Your task to perform on an android device: Open calendar and show me the second week of next month Image 0: 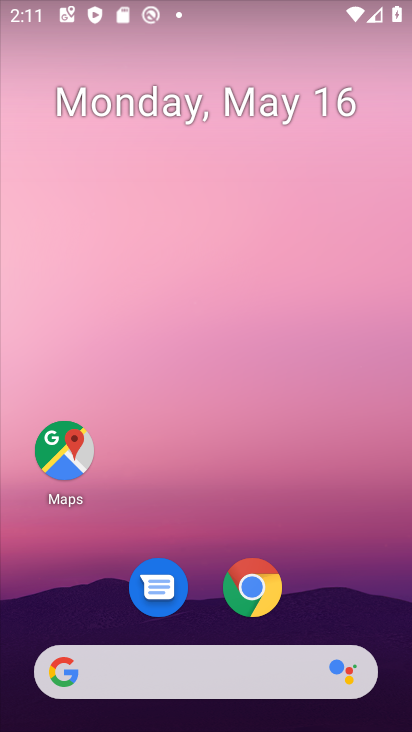
Step 0: drag from (319, 597) to (193, 129)
Your task to perform on an android device: Open calendar and show me the second week of next month Image 1: 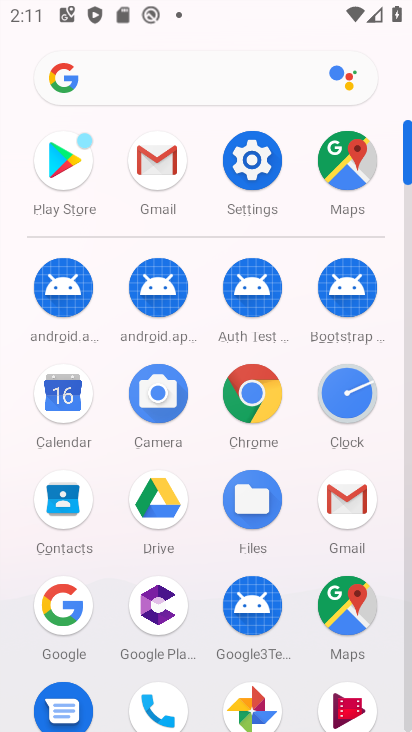
Step 1: click (62, 396)
Your task to perform on an android device: Open calendar and show me the second week of next month Image 2: 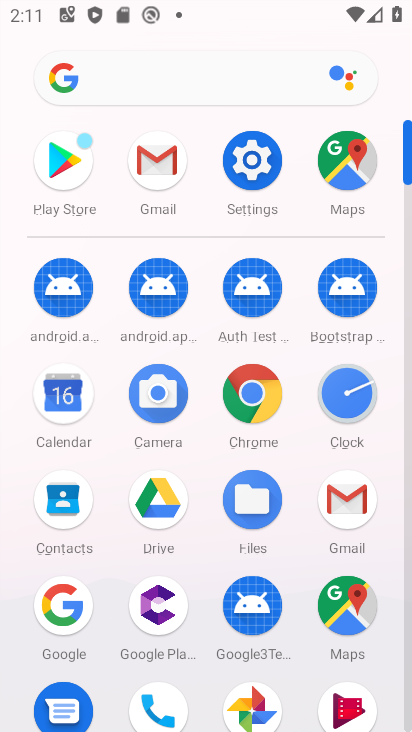
Step 2: click (62, 396)
Your task to perform on an android device: Open calendar and show me the second week of next month Image 3: 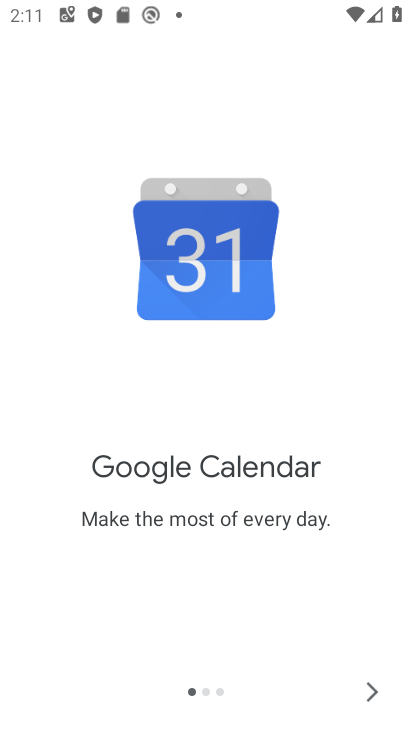
Step 3: click (366, 694)
Your task to perform on an android device: Open calendar and show me the second week of next month Image 4: 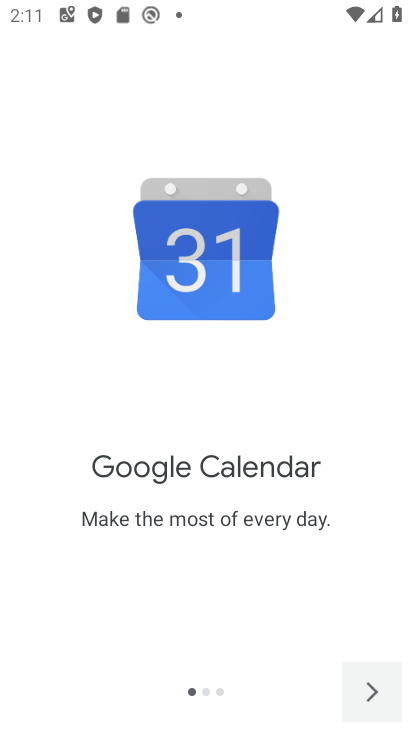
Step 4: click (368, 688)
Your task to perform on an android device: Open calendar and show me the second week of next month Image 5: 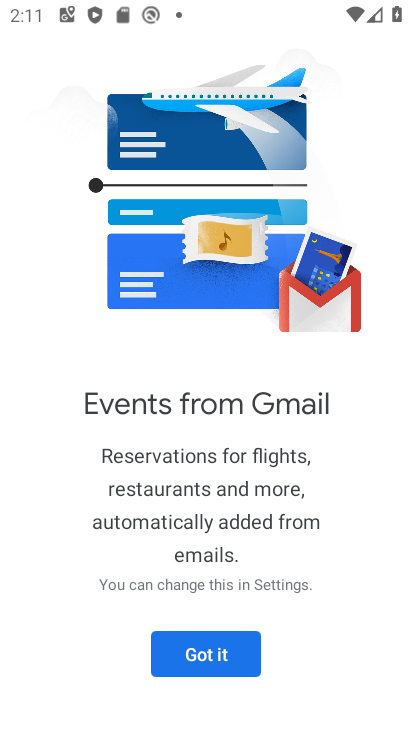
Step 5: click (202, 652)
Your task to perform on an android device: Open calendar and show me the second week of next month Image 6: 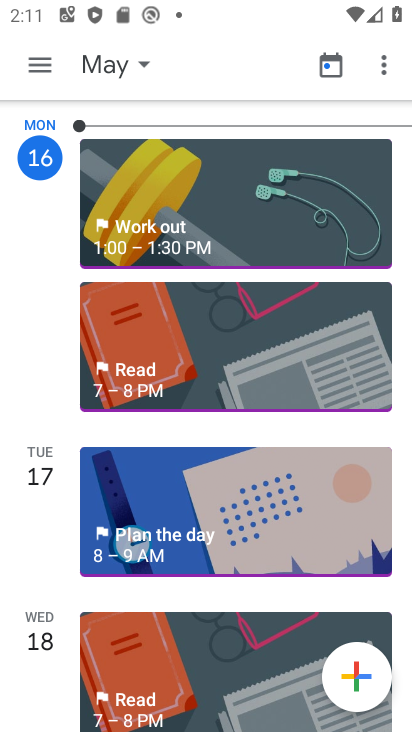
Step 6: drag from (198, 508) to (192, 255)
Your task to perform on an android device: Open calendar and show me the second week of next month Image 7: 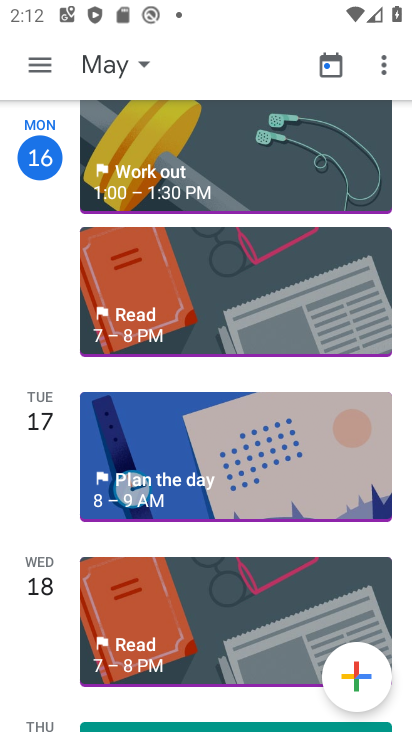
Step 7: click (142, 56)
Your task to perform on an android device: Open calendar and show me the second week of next month Image 8: 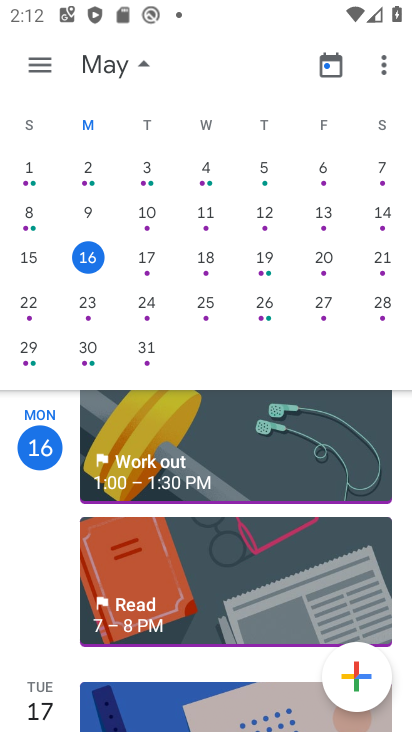
Step 8: drag from (327, 254) to (59, 162)
Your task to perform on an android device: Open calendar and show me the second week of next month Image 9: 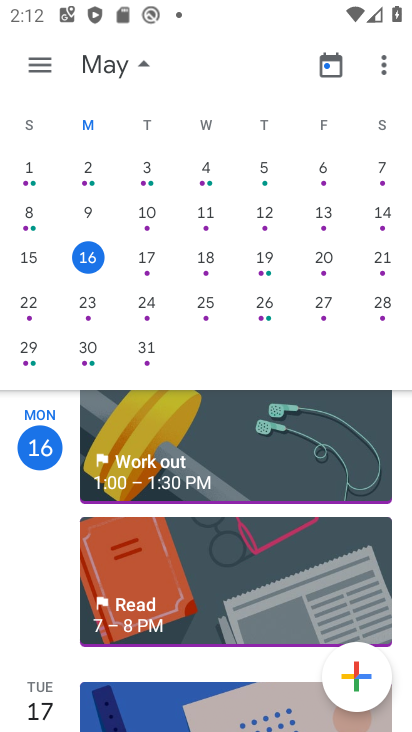
Step 9: drag from (214, 187) to (26, 162)
Your task to perform on an android device: Open calendar and show me the second week of next month Image 10: 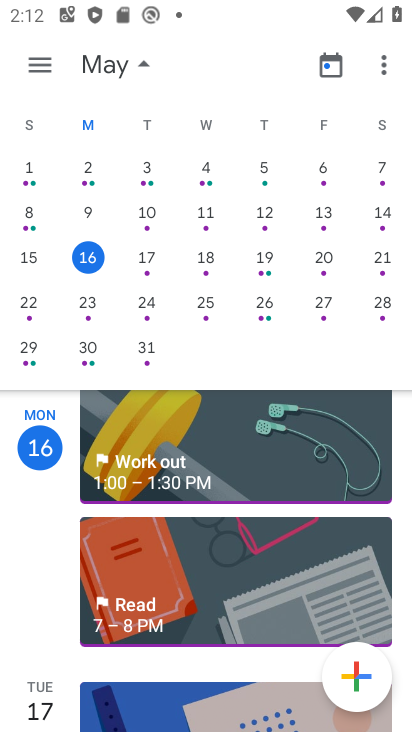
Step 10: drag from (204, 252) to (22, 299)
Your task to perform on an android device: Open calendar and show me the second week of next month Image 11: 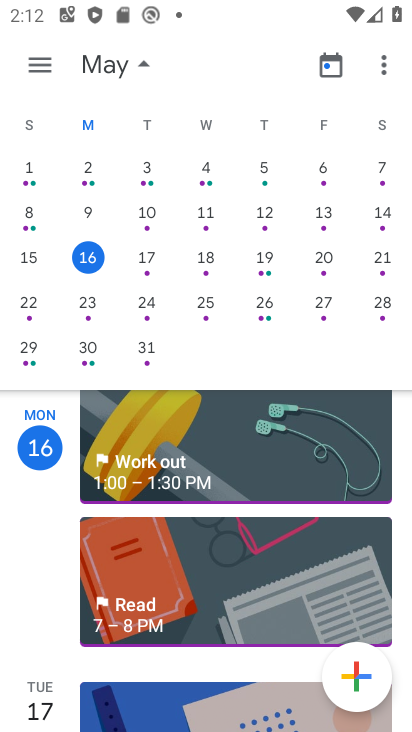
Step 11: drag from (253, 269) to (22, 273)
Your task to perform on an android device: Open calendar and show me the second week of next month Image 12: 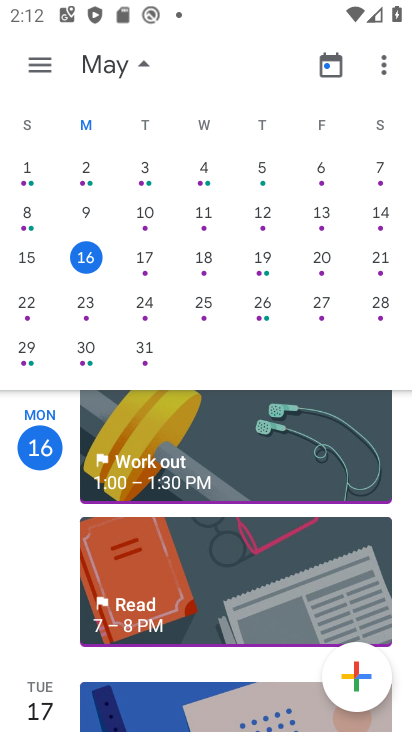
Step 12: click (90, 261)
Your task to perform on an android device: Open calendar and show me the second week of next month Image 13: 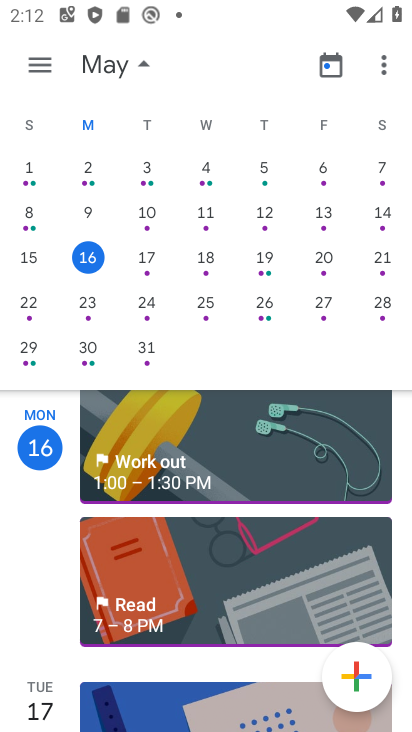
Step 13: drag from (290, 261) to (57, 249)
Your task to perform on an android device: Open calendar and show me the second week of next month Image 14: 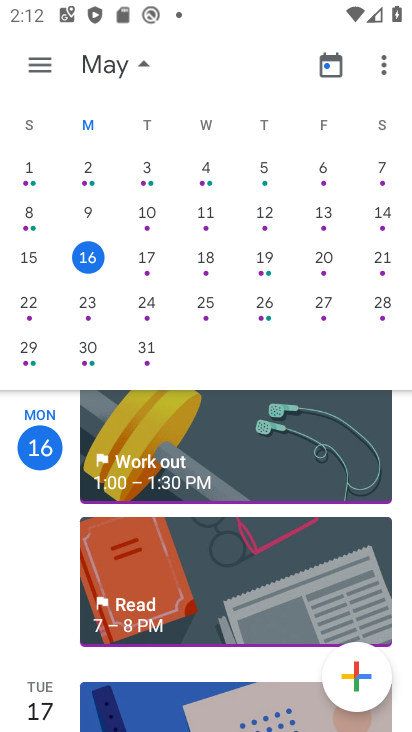
Step 14: drag from (182, 266) to (78, 260)
Your task to perform on an android device: Open calendar and show me the second week of next month Image 15: 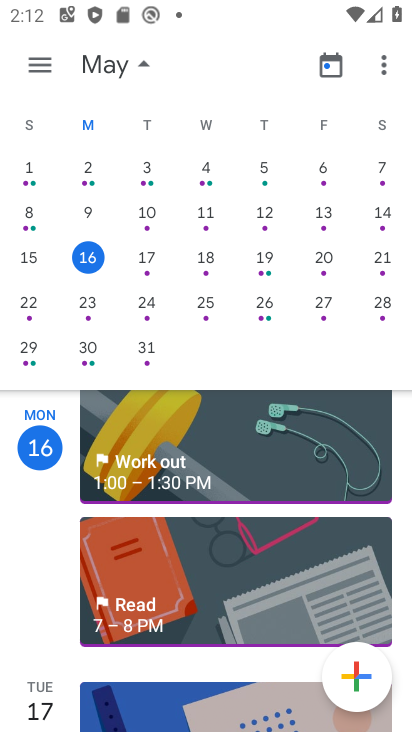
Step 15: drag from (239, 227) to (20, 295)
Your task to perform on an android device: Open calendar and show me the second week of next month Image 16: 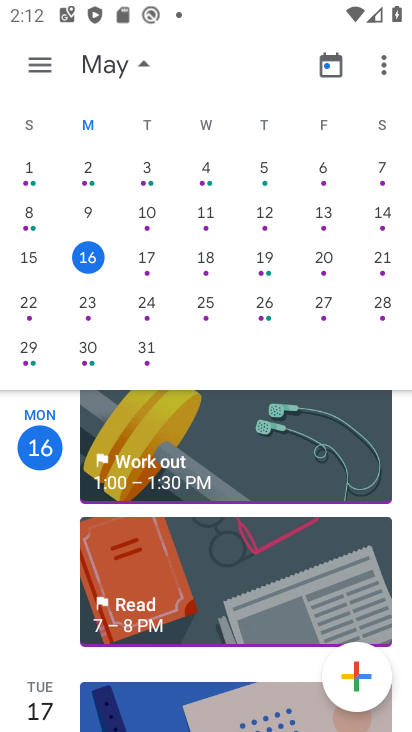
Step 16: drag from (231, 250) to (32, 283)
Your task to perform on an android device: Open calendar and show me the second week of next month Image 17: 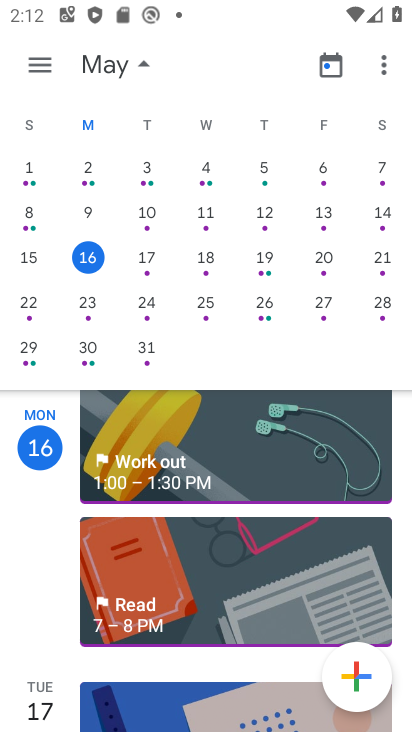
Step 17: drag from (210, 260) to (9, 272)
Your task to perform on an android device: Open calendar and show me the second week of next month Image 18: 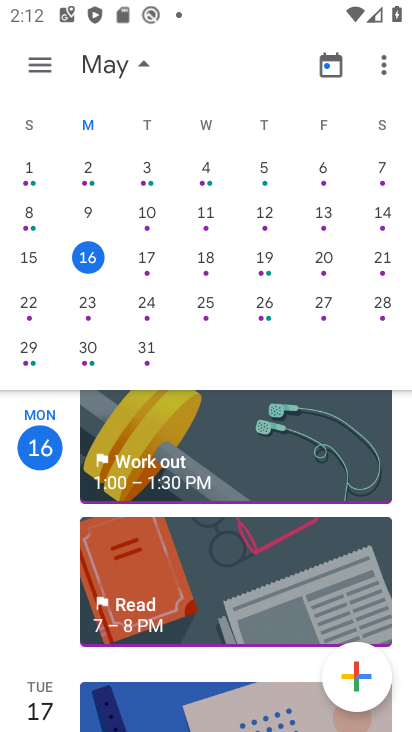
Step 18: drag from (140, 214) to (21, 237)
Your task to perform on an android device: Open calendar and show me the second week of next month Image 19: 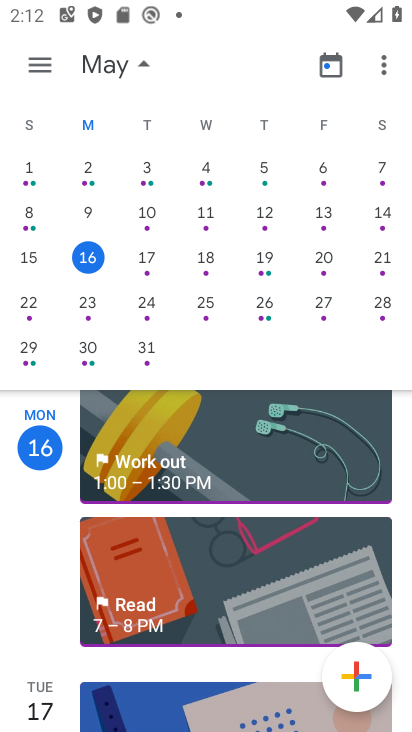
Step 19: drag from (231, 245) to (17, 216)
Your task to perform on an android device: Open calendar and show me the second week of next month Image 20: 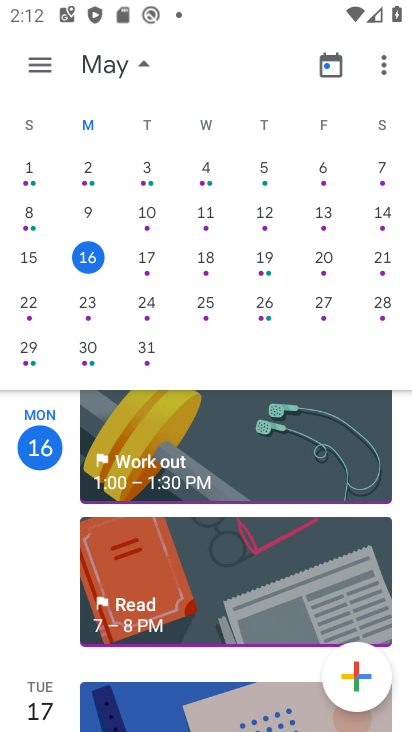
Step 20: drag from (158, 255) to (78, 178)
Your task to perform on an android device: Open calendar and show me the second week of next month Image 21: 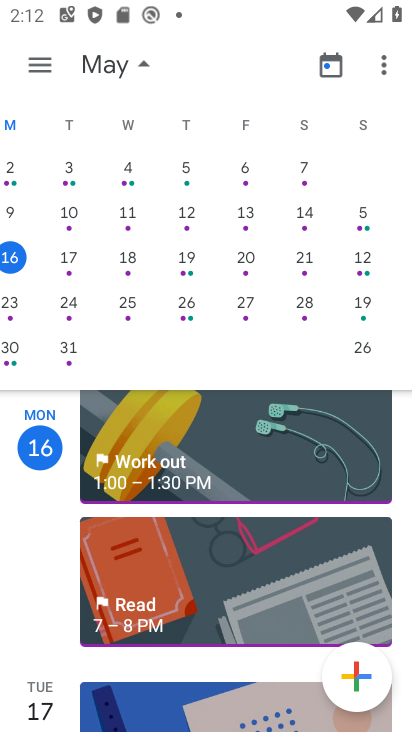
Step 21: drag from (215, 172) to (6, 217)
Your task to perform on an android device: Open calendar and show me the second week of next month Image 22: 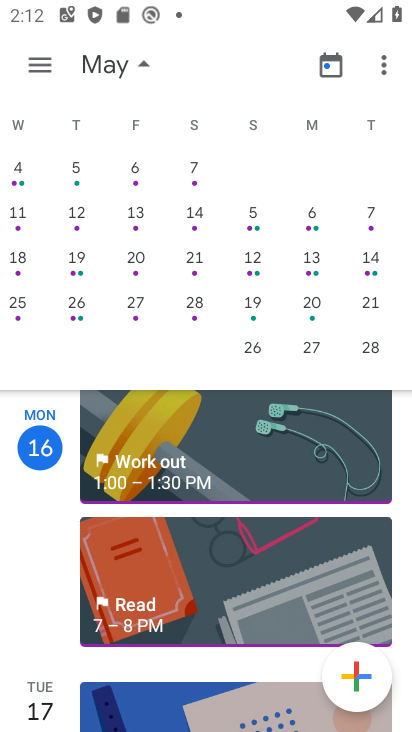
Step 22: drag from (93, 229) to (31, 277)
Your task to perform on an android device: Open calendar and show me the second week of next month Image 23: 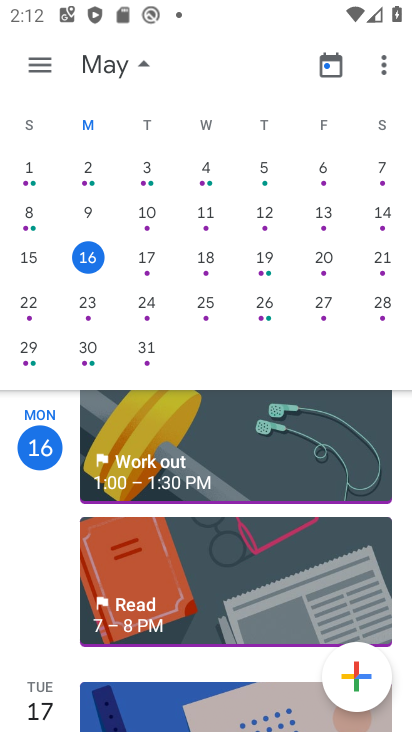
Step 23: drag from (200, 259) to (4, 327)
Your task to perform on an android device: Open calendar and show me the second week of next month Image 24: 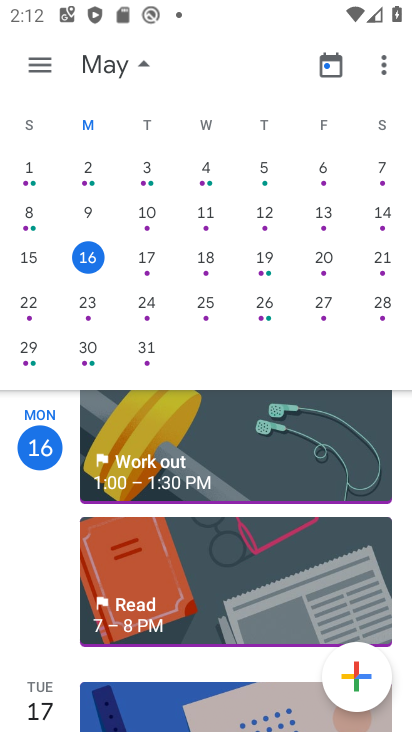
Step 24: drag from (166, 266) to (2, 338)
Your task to perform on an android device: Open calendar and show me the second week of next month Image 25: 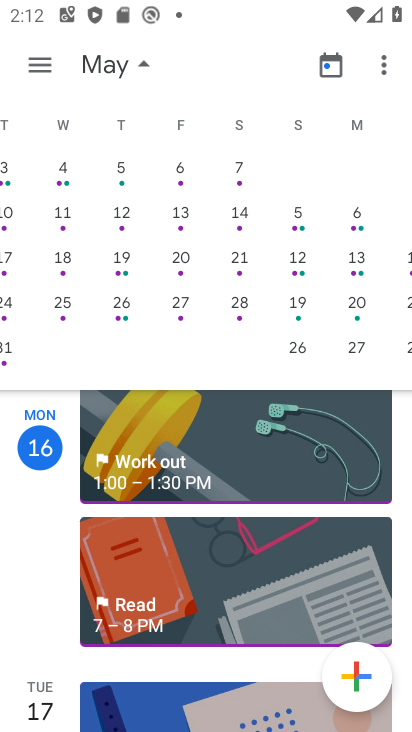
Step 25: drag from (163, 278) to (49, 289)
Your task to perform on an android device: Open calendar and show me the second week of next month Image 26: 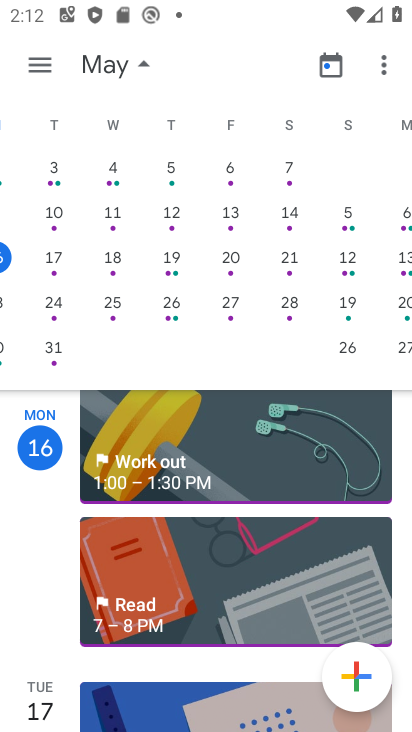
Step 26: drag from (201, 236) to (93, 258)
Your task to perform on an android device: Open calendar and show me the second week of next month Image 27: 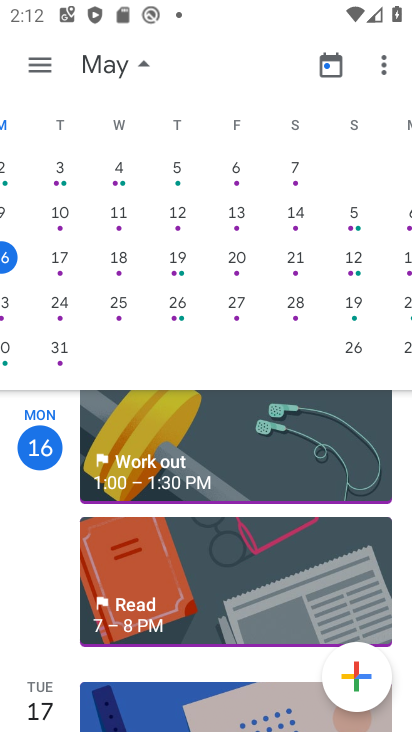
Step 27: drag from (73, 271) to (21, 198)
Your task to perform on an android device: Open calendar and show me the second week of next month Image 28: 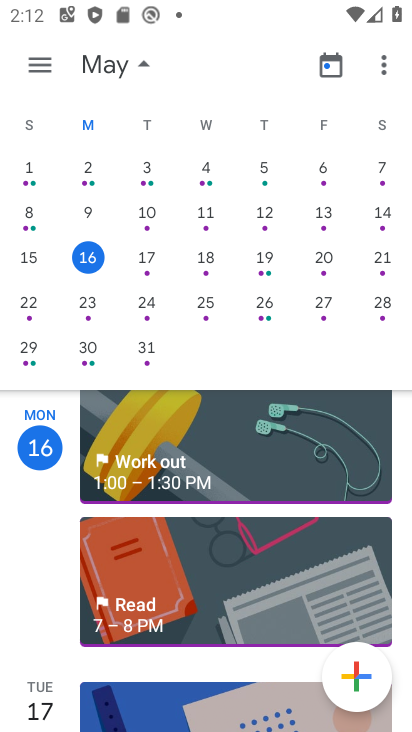
Step 28: drag from (184, 192) to (56, 207)
Your task to perform on an android device: Open calendar and show me the second week of next month Image 29: 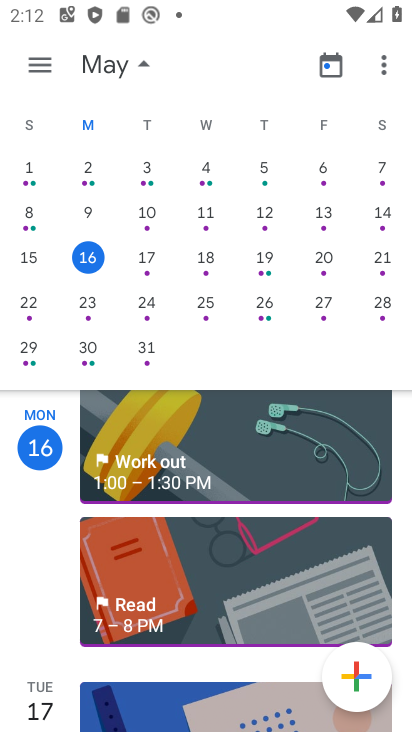
Step 29: drag from (163, 241) to (31, 270)
Your task to perform on an android device: Open calendar and show me the second week of next month Image 30: 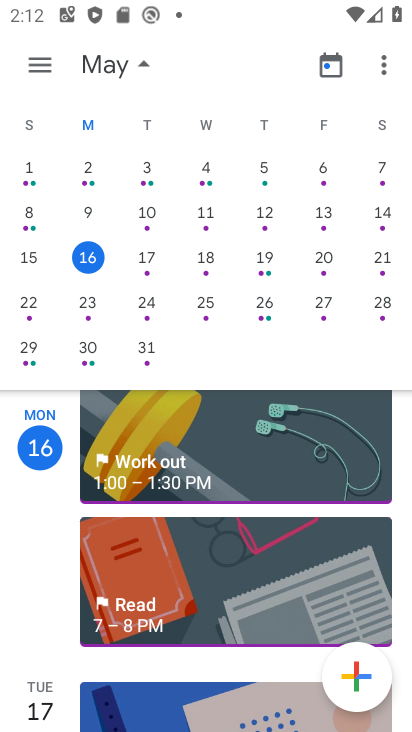
Step 30: drag from (255, 248) to (7, 277)
Your task to perform on an android device: Open calendar and show me the second week of next month Image 31: 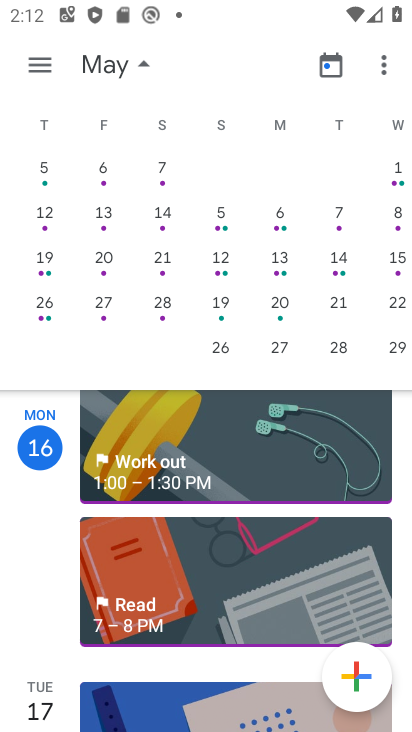
Step 31: drag from (172, 254) to (13, 323)
Your task to perform on an android device: Open calendar and show me the second week of next month Image 32: 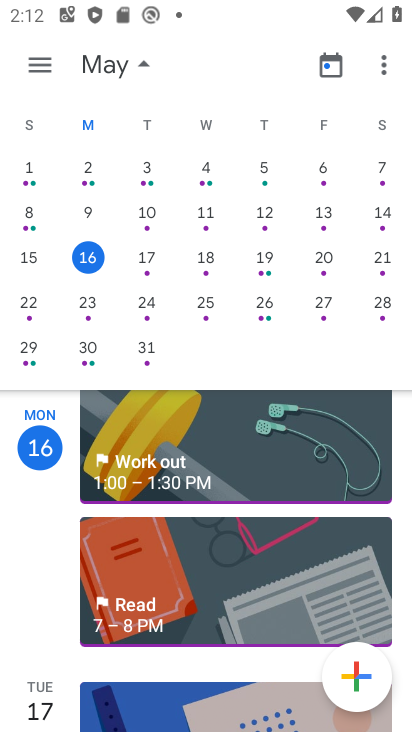
Step 32: drag from (148, 270) to (13, 289)
Your task to perform on an android device: Open calendar and show me the second week of next month Image 33: 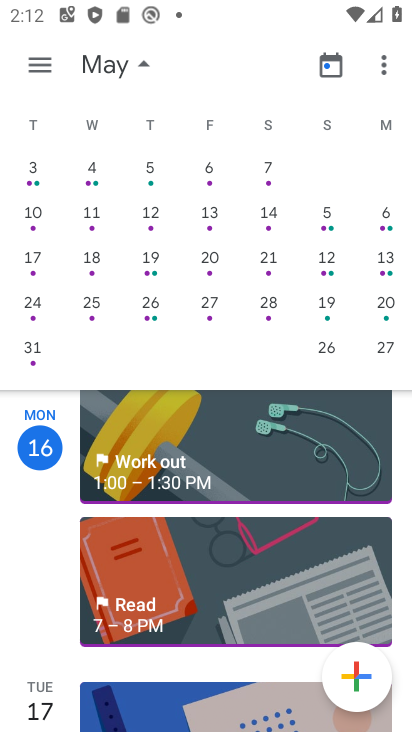
Step 33: drag from (206, 232) to (61, 297)
Your task to perform on an android device: Open calendar and show me the second week of next month Image 34: 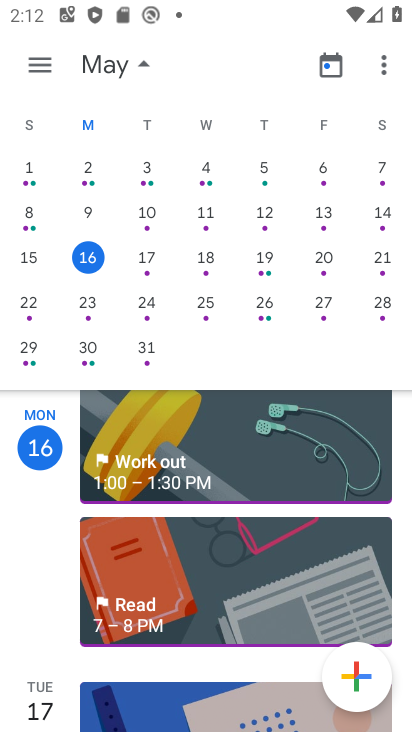
Step 34: drag from (186, 249) to (56, 338)
Your task to perform on an android device: Open calendar and show me the second week of next month Image 35: 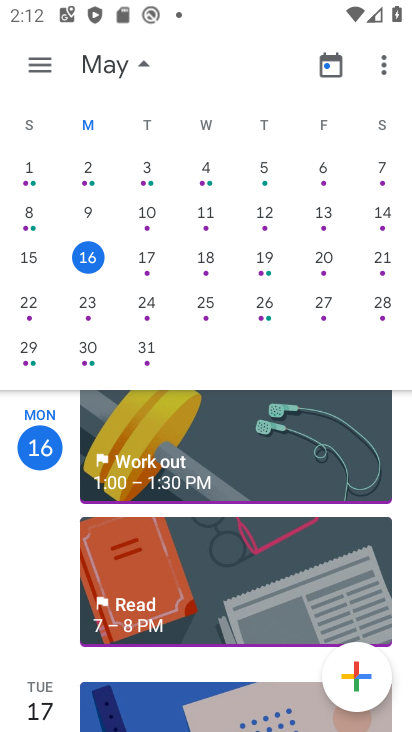
Step 35: drag from (210, 253) to (18, 280)
Your task to perform on an android device: Open calendar and show me the second week of next month Image 36: 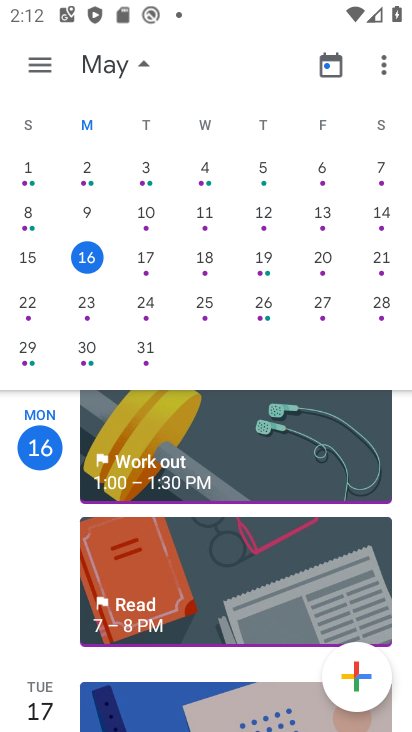
Step 36: drag from (0, 224) to (11, 178)
Your task to perform on an android device: Open calendar and show me the second week of next month Image 37: 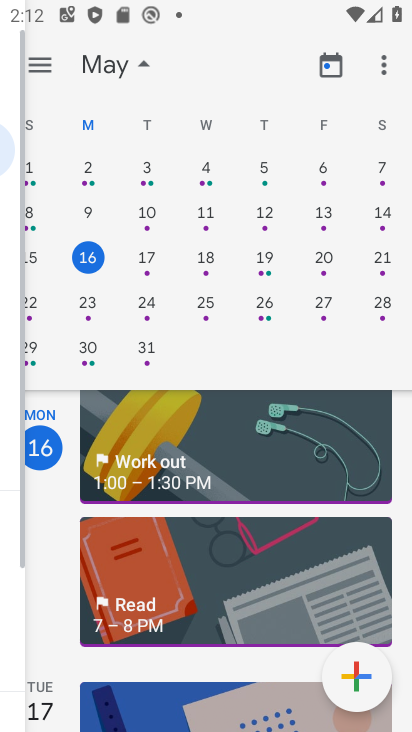
Step 37: drag from (136, 247) to (51, 210)
Your task to perform on an android device: Open calendar and show me the second week of next month Image 38: 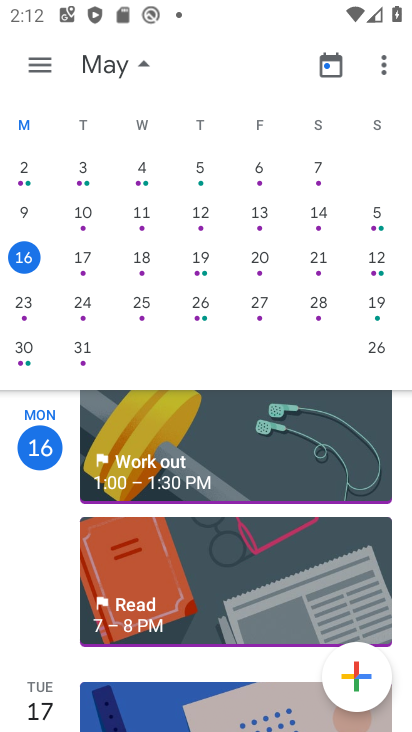
Step 38: drag from (165, 265) to (32, 284)
Your task to perform on an android device: Open calendar and show me the second week of next month Image 39: 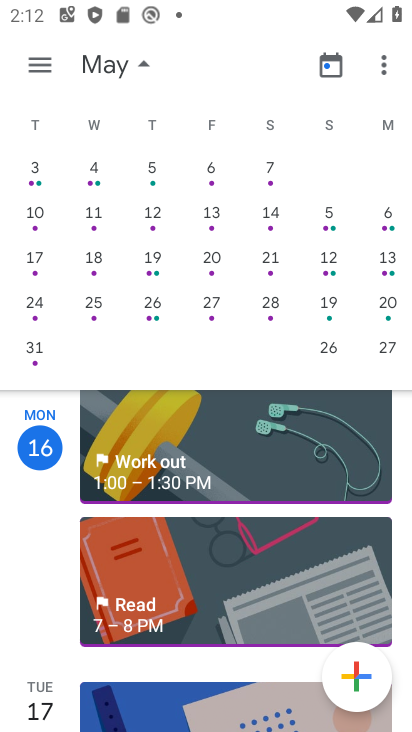
Step 39: drag from (29, 287) to (21, 344)
Your task to perform on an android device: Open calendar and show me the second week of next month Image 40: 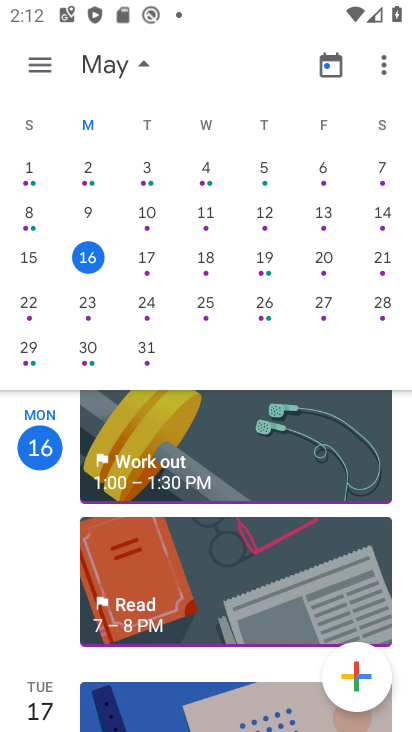
Step 40: click (5, 293)
Your task to perform on an android device: Open calendar and show me the second week of next month Image 41: 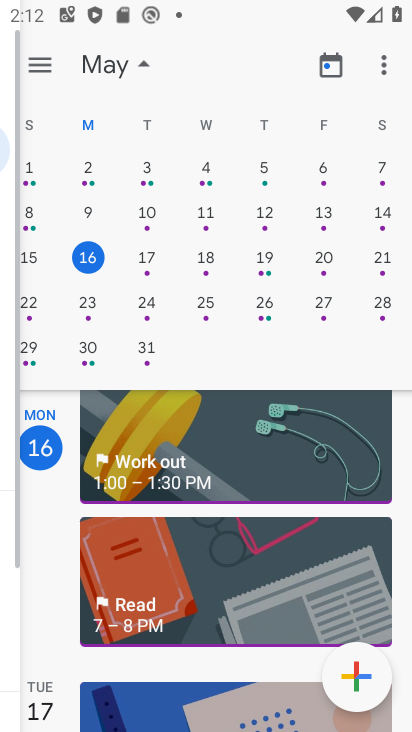
Step 41: drag from (224, 279) to (18, 327)
Your task to perform on an android device: Open calendar and show me the second week of next month Image 42: 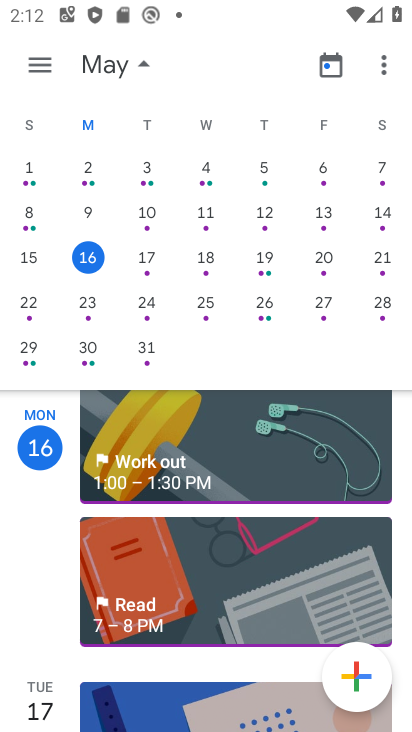
Step 42: drag from (101, 300) to (59, 246)
Your task to perform on an android device: Open calendar and show me the second week of next month Image 43: 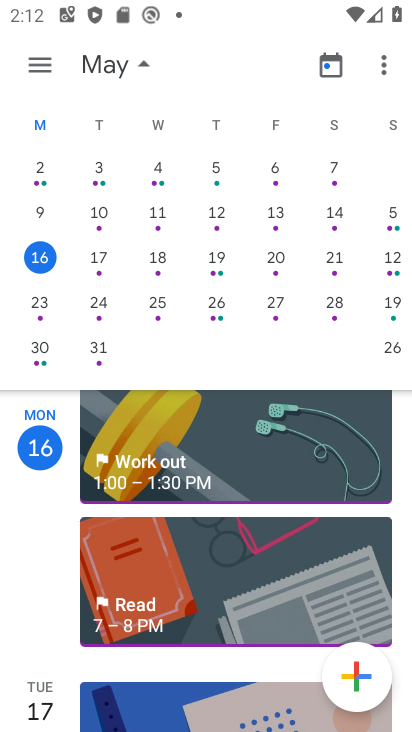
Step 43: drag from (117, 254) to (12, 322)
Your task to perform on an android device: Open calendar and show me the second week of next month Image 44: 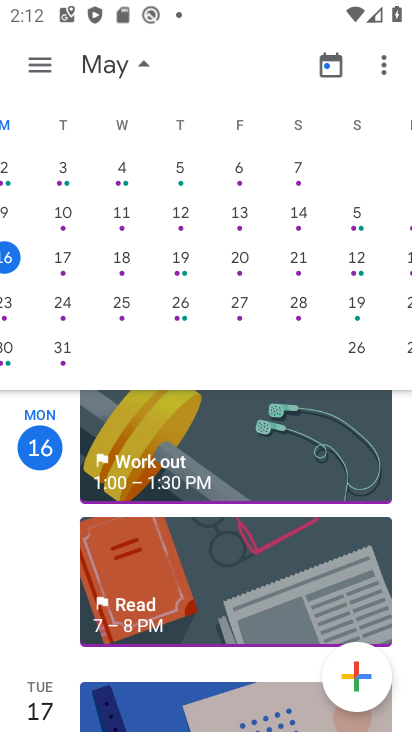
Step 44: drag from (152, 300) to (32, 319)
Your task to perform on an android device: Open calendar and show me the second week of next month Image 45: 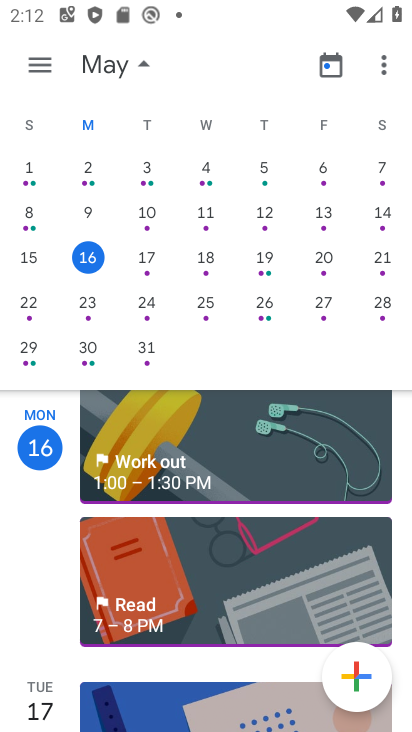
Step 45: drag from (224, 260) to (6, 244)
Your task to perform on an android device: Open calendar and show me the second week of next month Image 46: 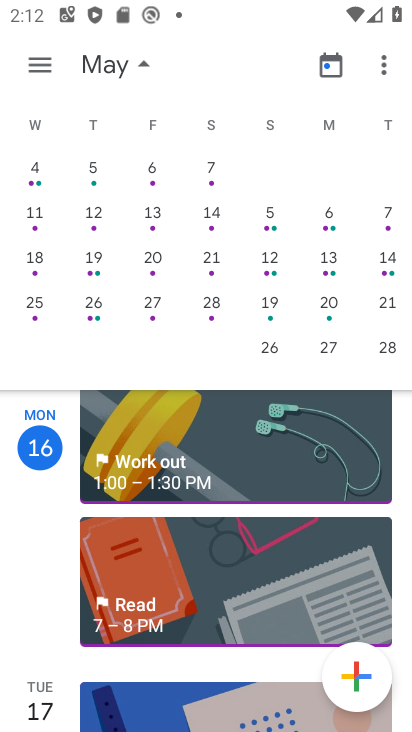
Step 46: drag from (109, 241) to (5, 259)
Your task to perform on an android device: Open calendar and show me the second week of next month Image 47: 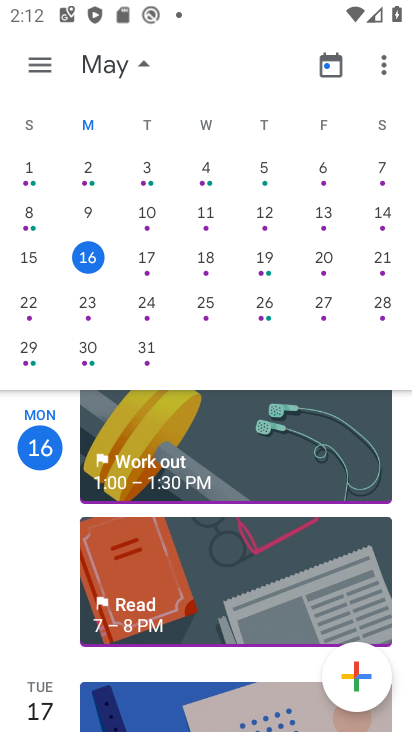
Step 47: drag from (23, 257) to (220, 327)
Your task to perform on an android device: Open calendar and show me the second week of next month Image 48: 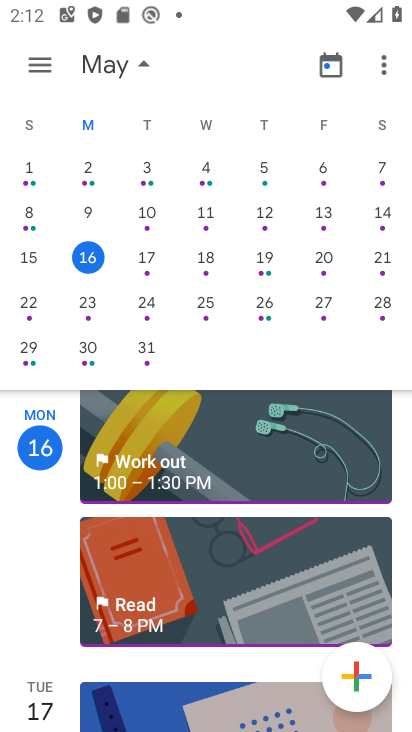
Step 48: drag from (281, 283) to (0, 284)
Your task to perform on an android device: Open calendar and show me the second week of next month Image 49: 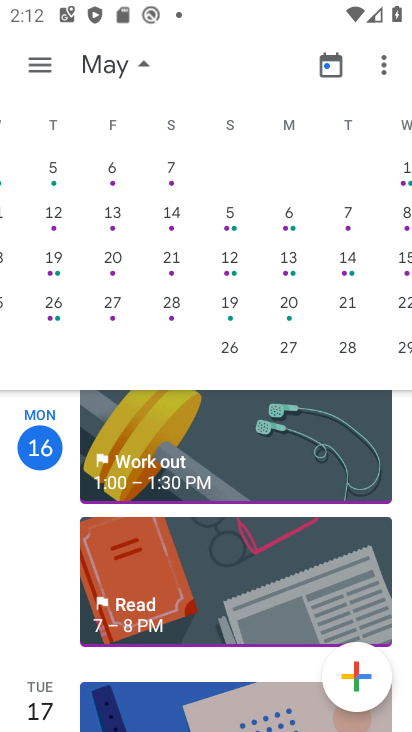
Step 49: drag from (78, 287) to (13, 322)
Your task to perform on an android device: Open calendar and show me the second week of next month Image 50: 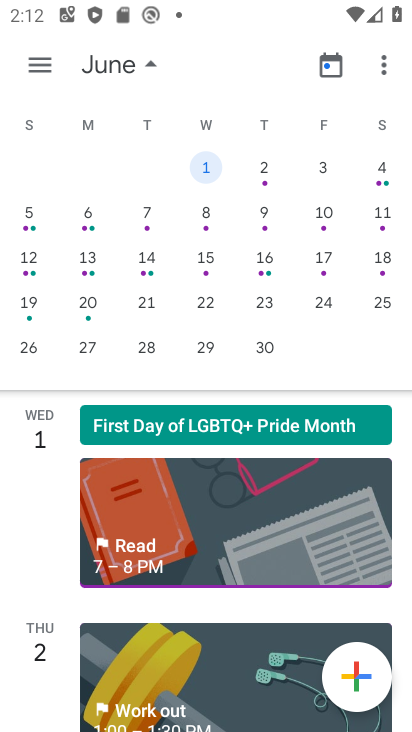
Step 50: drag from (51, 351) to (30, 290)
Your task to perform on an android device: Open calendar and show me the second week of next month Image 51: 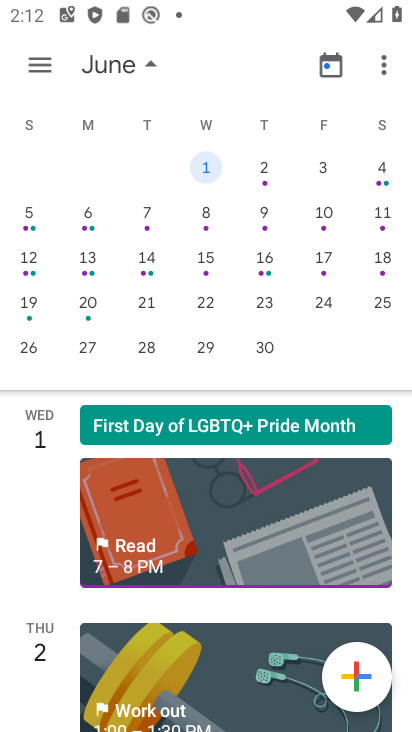
Step 51: drag from (261, 287) to (71, 298)
Your task to perform on an android device: Open calendar and show me the second week of next month Image 52: 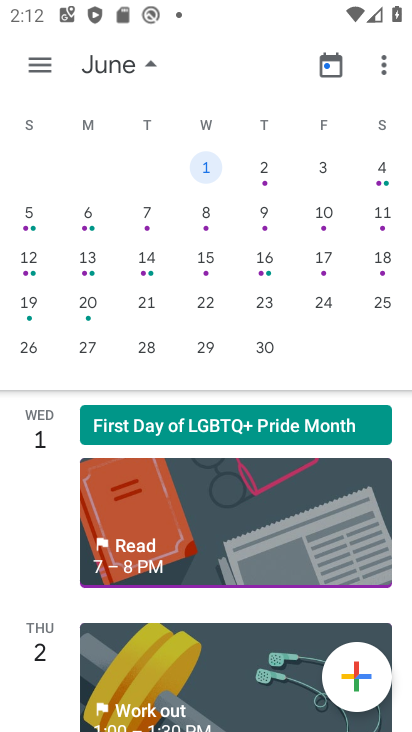
Step 52: click (204, 224)
Your task to perform on an android device: Open calendar and show me the second week of next month Image 53: 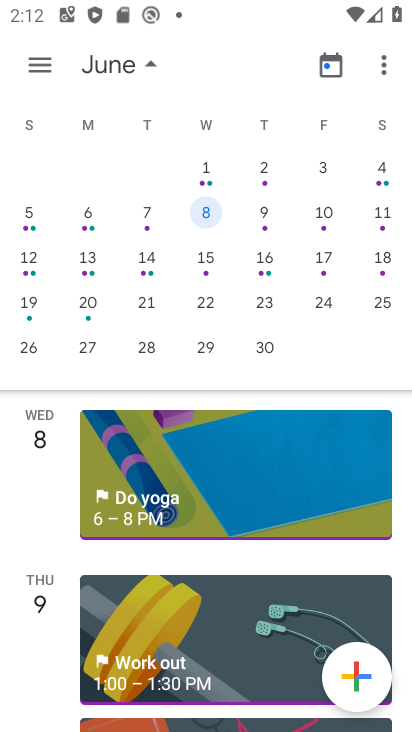
Step 53: click (204, 224)
Your task to perform on an android device: Open calendar and show me the second week of next month Image 54: 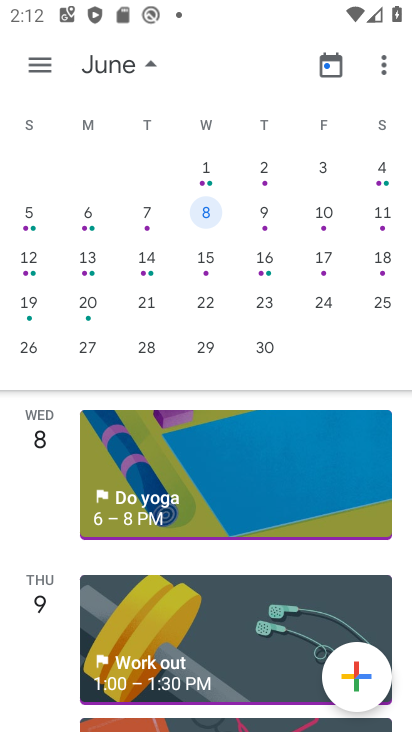
Step 54: task complete